Your task to perform on an android device: Go to notification settings Image 0: 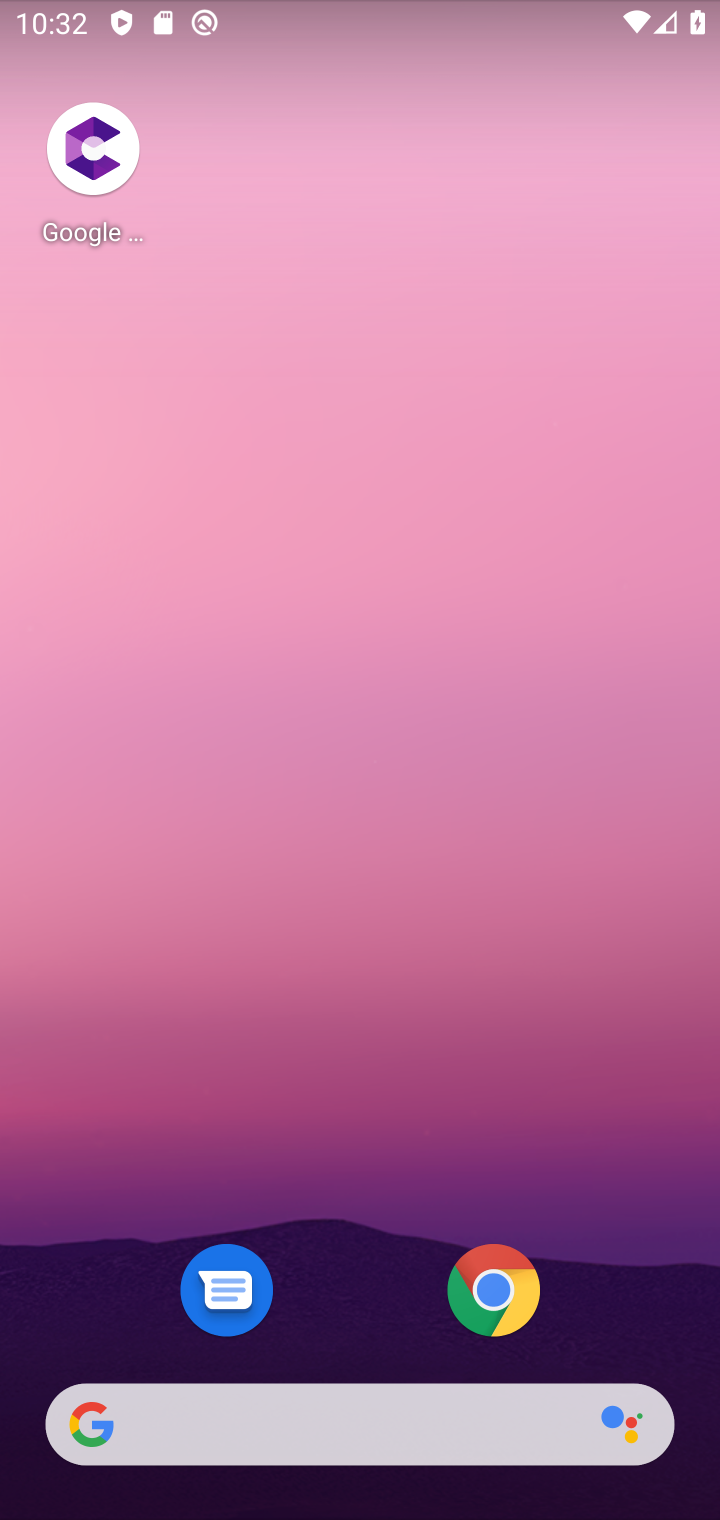
Step 0: press home button
Your task to perform on an android device: Go to notification settings Image 1: 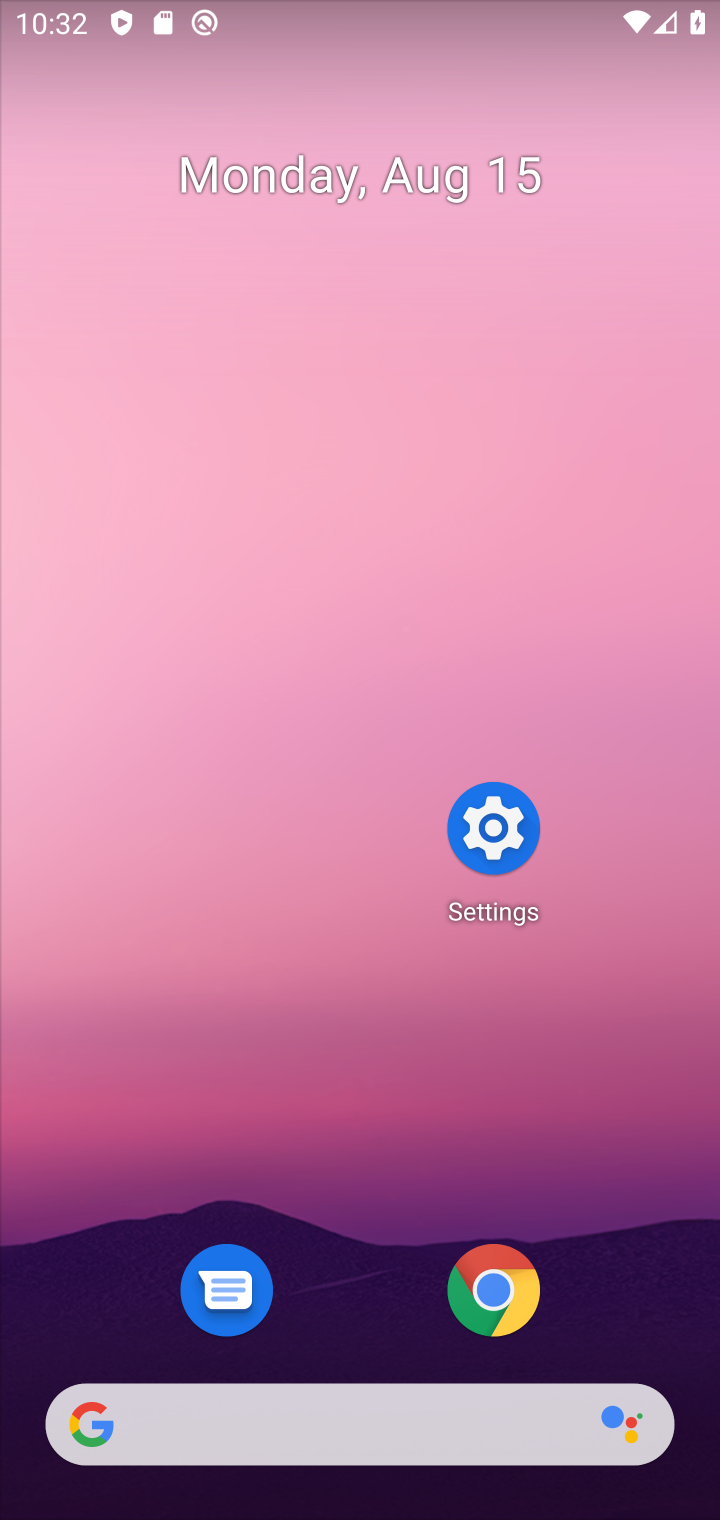
Step 1: press home button
Your task to perform on an android device: Go to notification settings Image 2: 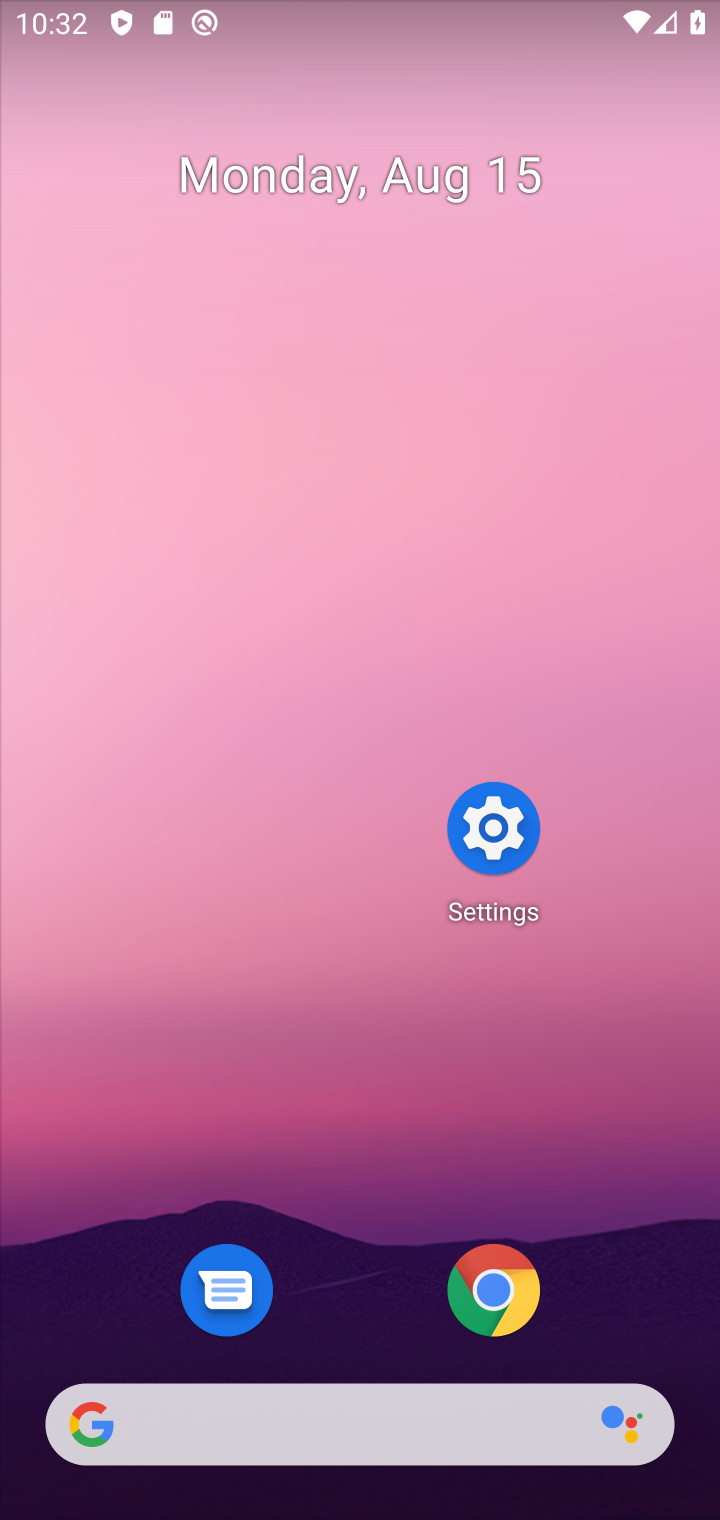
Step 2: click (485, 832)
Your task to perform on an android device: Go to notification settings Image 3: 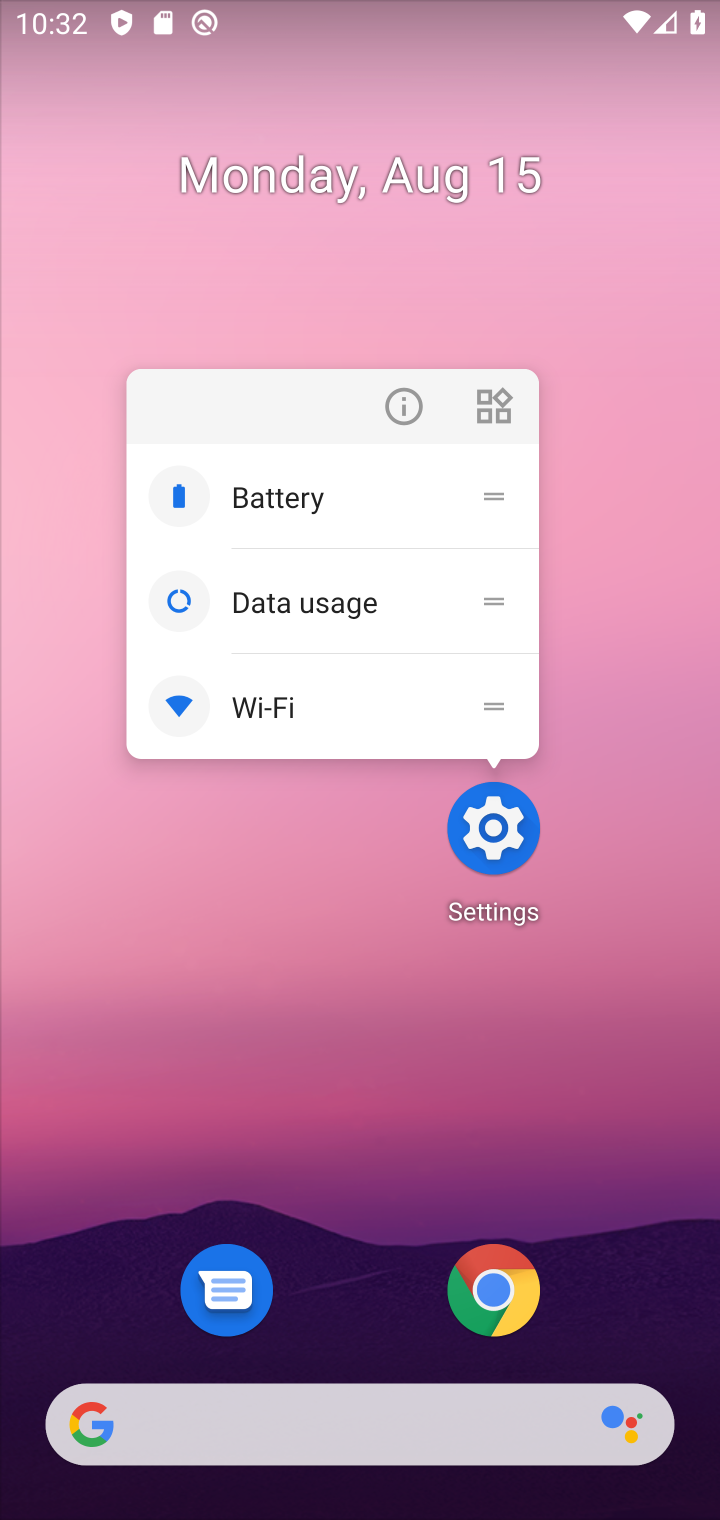
Step 3: click (485, 838)
Your task to perform on an android device: Go to notification settings Image 4: 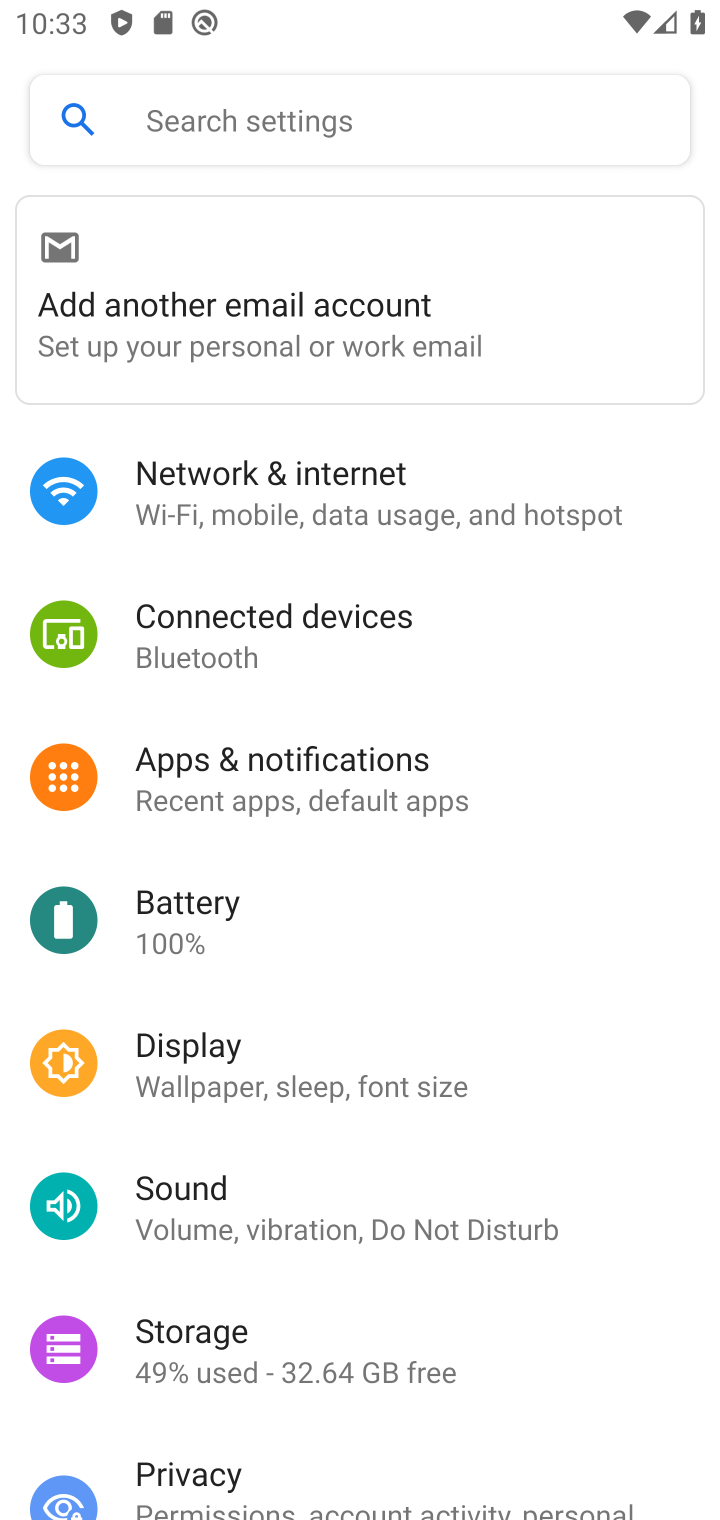
Step 4: click (322, 780)
Your task to perform on an android device: Go to notification settings Image 5: 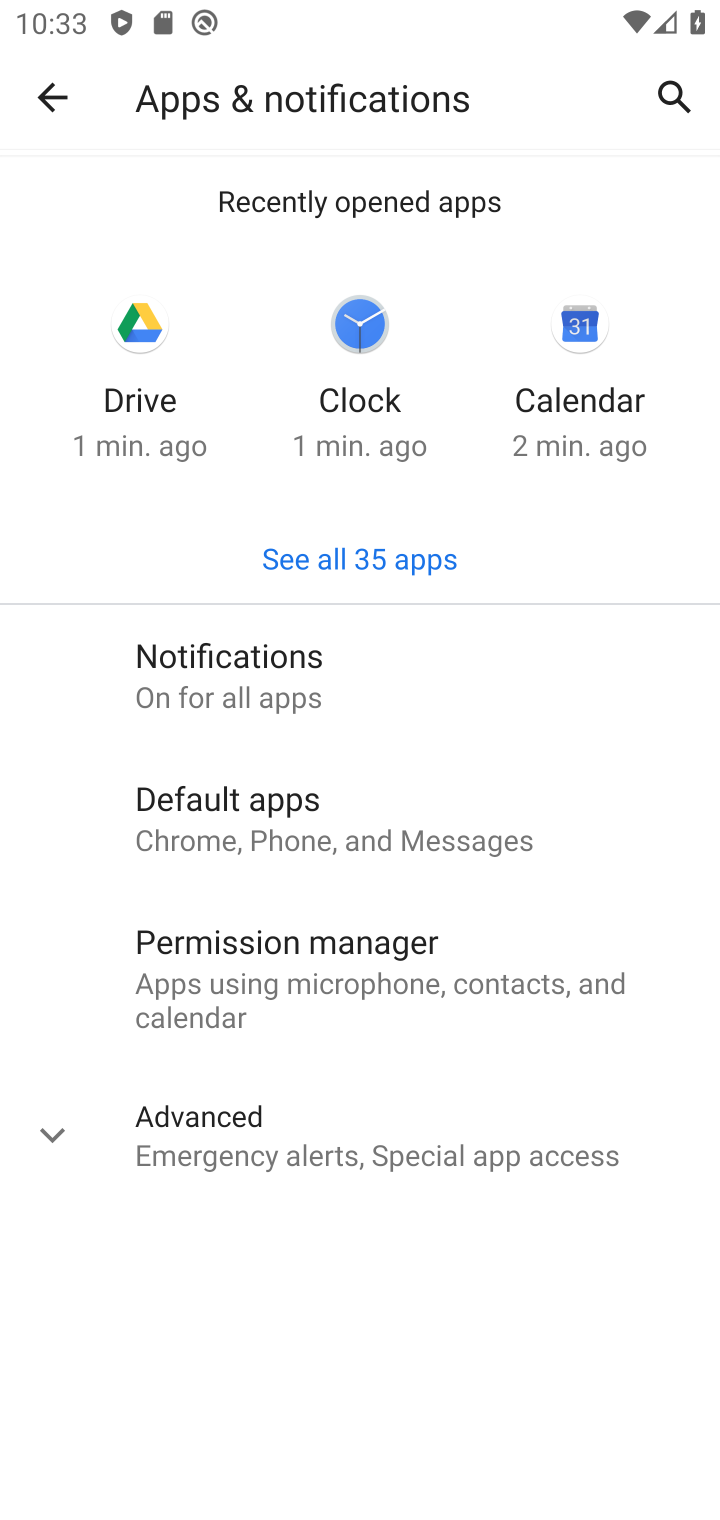
Step 5: click (268, 691)
Your task to perform on an android device: Go to notification settings Image 6: 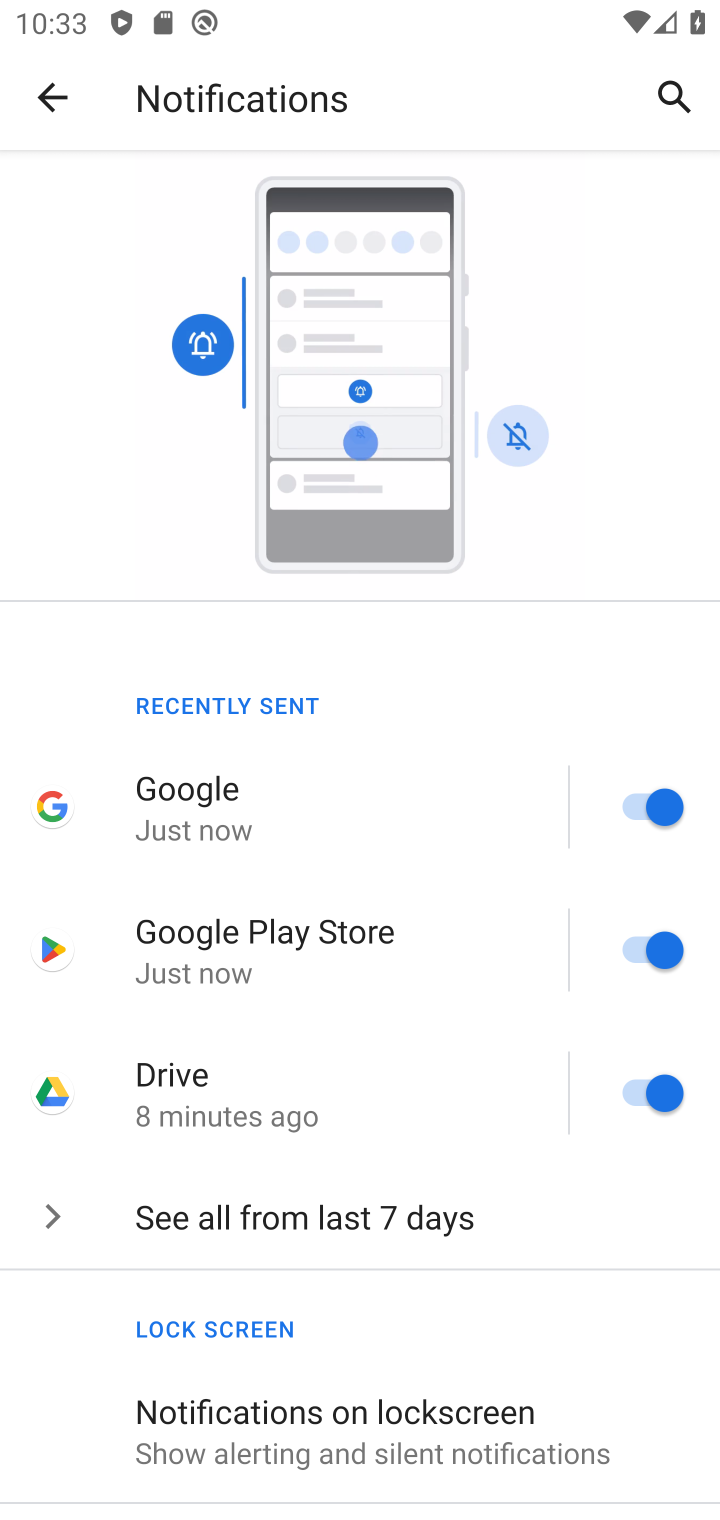
Step 6: task complete